Your task to perform on an android device: turn on airplane mode Image 0: 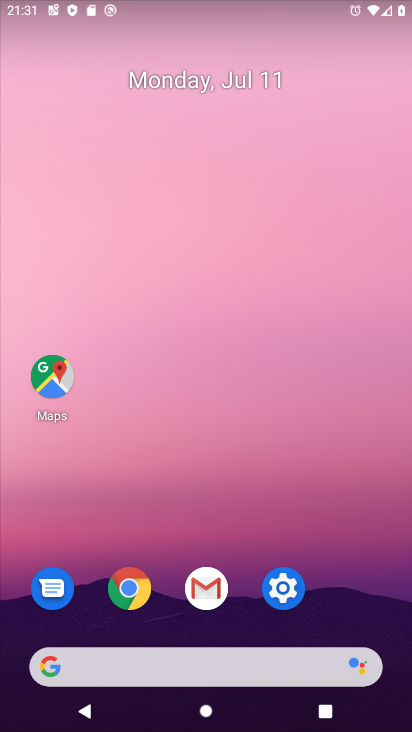
Step 0: drag from (255, 673) to (243, 179)
Your task to perform on an android device: turn on airplane mode Image 1: 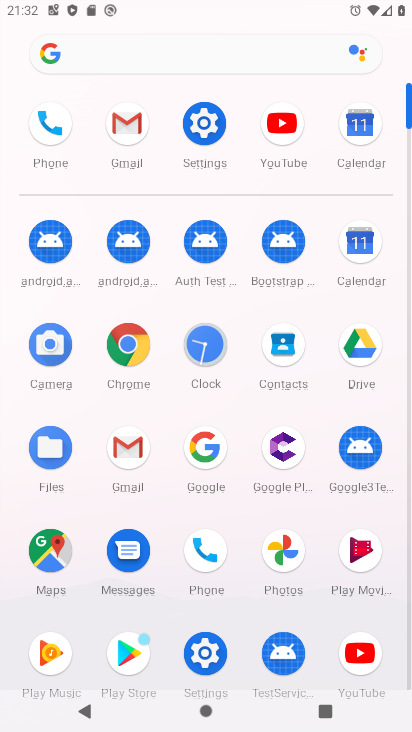
Step 1: click (212, 135)
Your task to perform on an android device: turn on airplane mode Image 2: 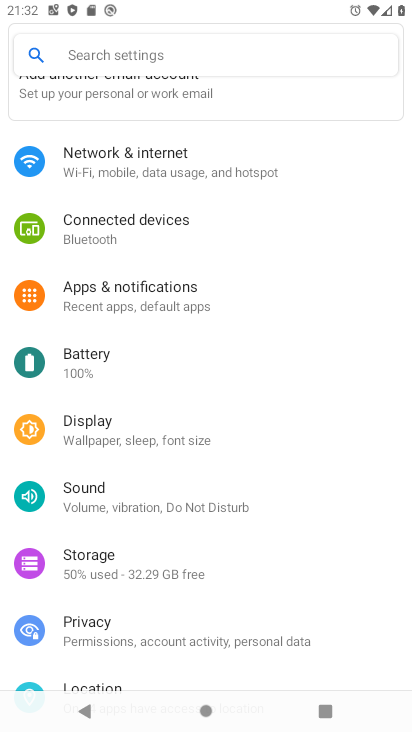
Step 2: click (146, 162)
Your task to perform on an android device: turn on airplane mode Image 3: 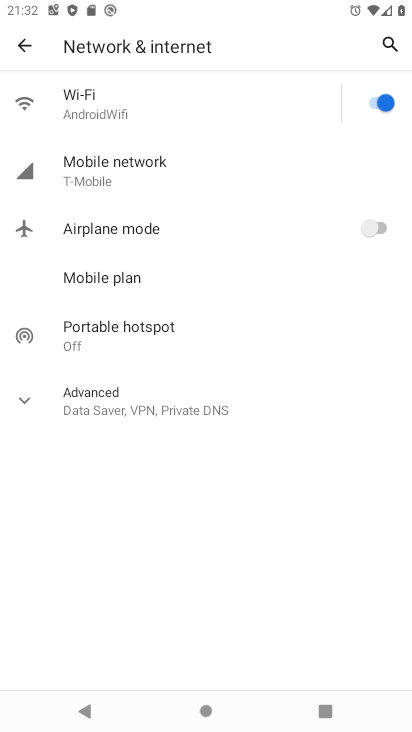
Step 3: click (381, 236)
Your task to perform on an android device: turn on airplane mode Image 4: 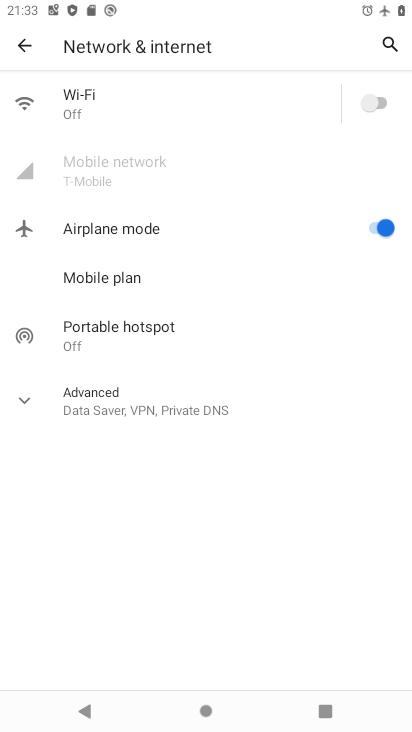
Step 4: task complete